Your task to perform on an android device: Open settings on Google Maps Image 0: 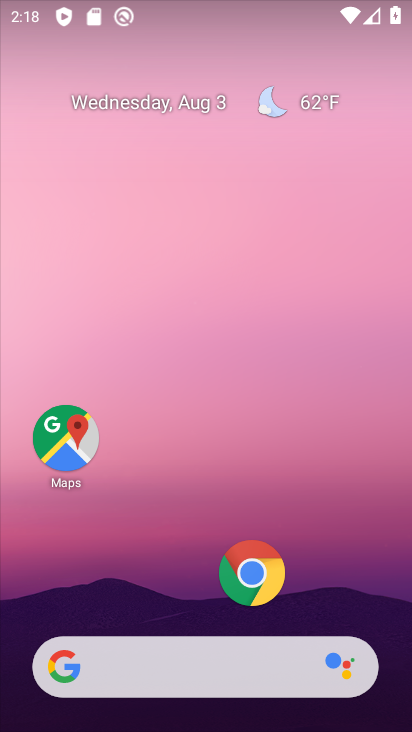
Step 0: click (73, 448)
Your task to perform on an android device: Open settings on Google Maps Image 1: 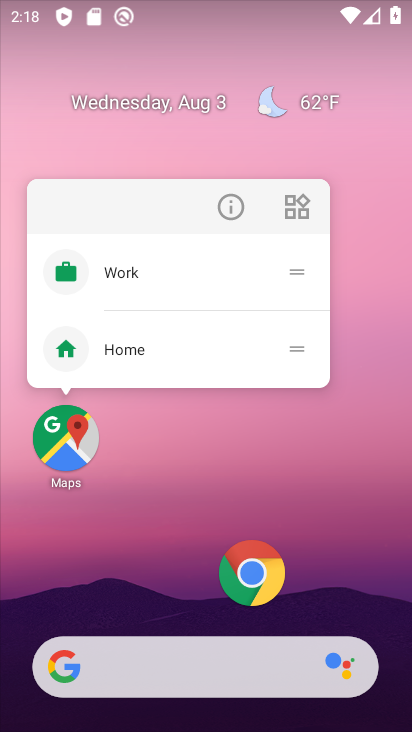
Step 1: click (73, 448)
Your task to perform on an android device: Open settings on Google Maps Image 2: 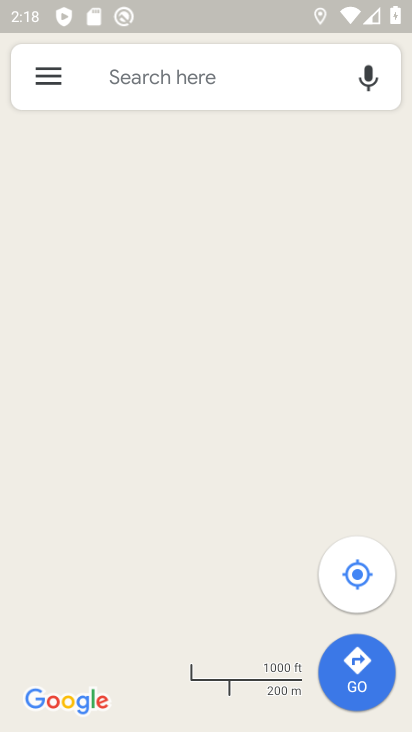
Step 2: click (46, 69)
Your task to perform on an android device: Open settings on Google Maps Image 3: 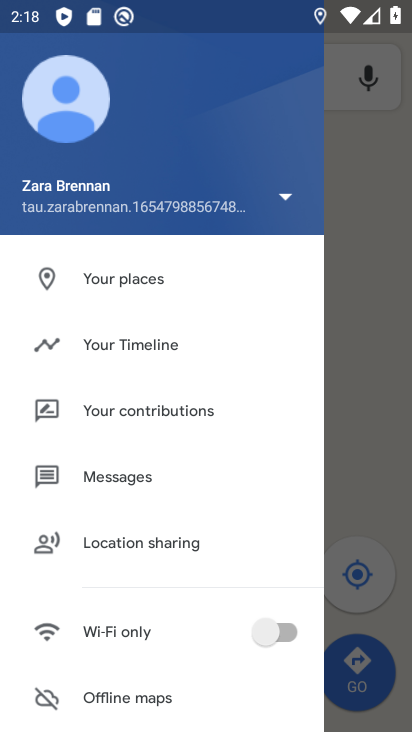
Step 3: drag from (111, 602) to (115, 210)
Your task to perform on an android device: Open settings on Google Maps Image 4: 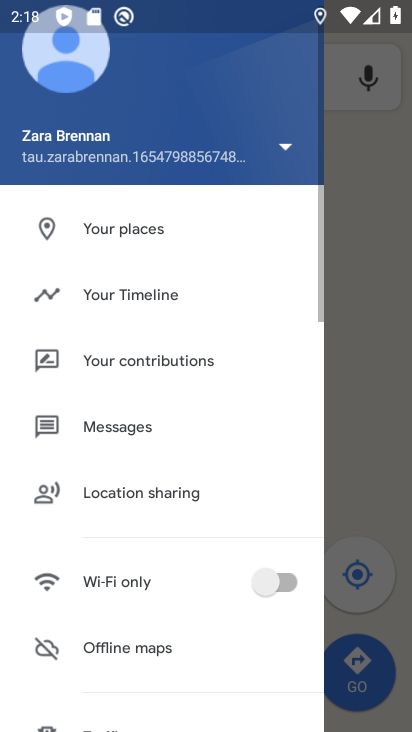
Step 4: drag from (158, 659) to (174, 176)
Your task to perform on an android device: Open settings on Google Maps Image 5: 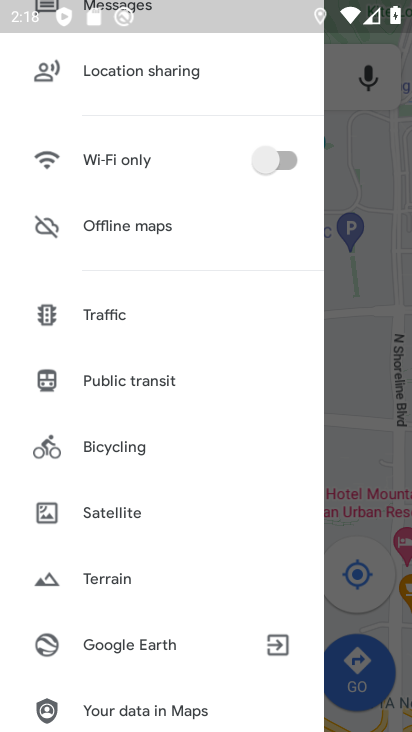
Step 5: drag from (151, 639) to (170, 237)
Your task to perform on an android device: Open settings on Google Maps Image 6: 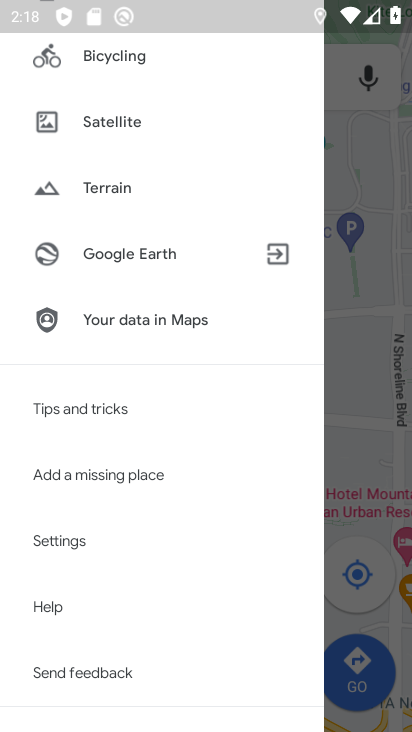
Step 6: click (65, 549)
Your task to perform on an android device: Open settings on Google Maps Image 7: 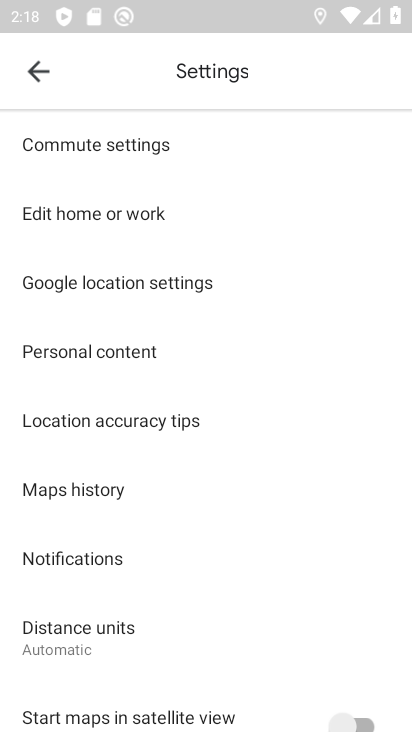
Step 7: task complete